Your task to perform on an android device: Open settings on Google Maps Image 0: 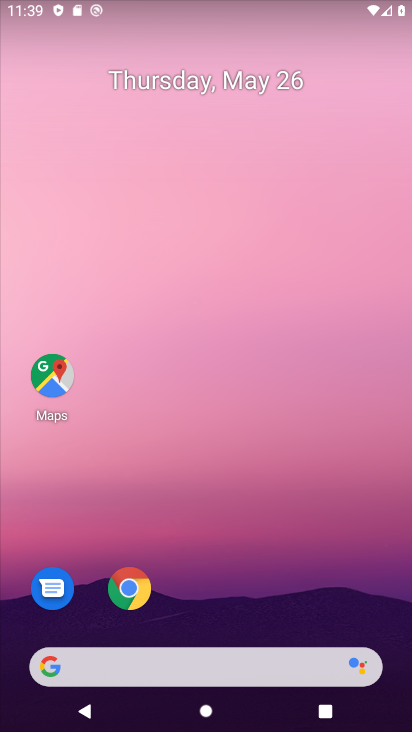
Step 0: drag from (198, 622) to (240, 721)
Your task to perform on an android device: Open settings on Google Maps Image 1: 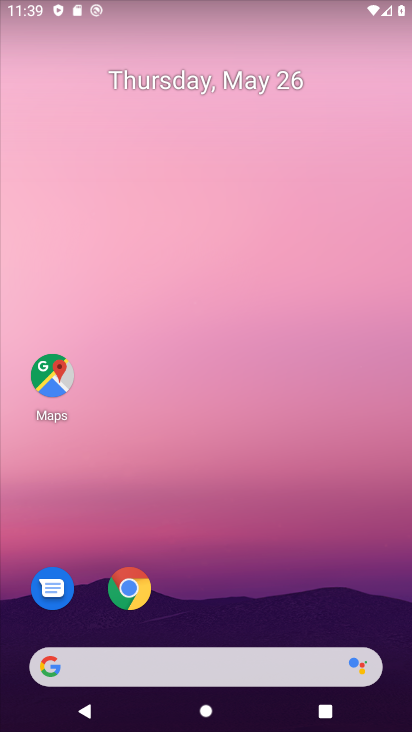
Step 1: drag from (217, 627) to (214, 11)
Your task to perform on an android device: Open settings on Google Maps Image 2: 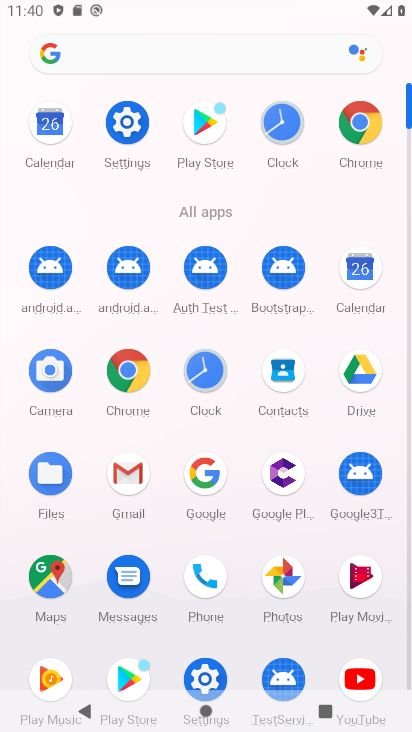
Step 2: click (45, 577)
Your task to perform on an android device: Open settings on Google Maps Image 3: 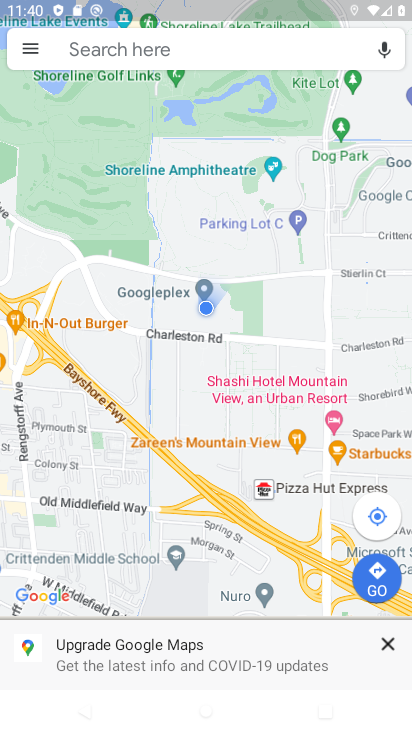
Step 3: click (22, 42)
Your task to perform on an android device: Open settings on Google Maps Image 4: 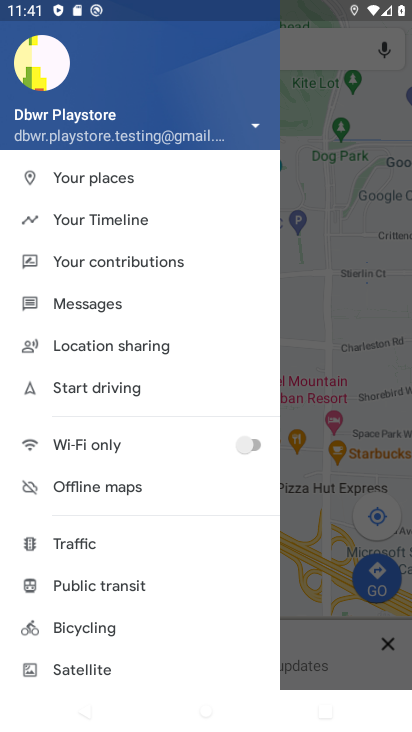
Step 4: drag from (64, 604) to (27, 118)
Your task to perform on an android device: Open settings on Google Maps Image 5: 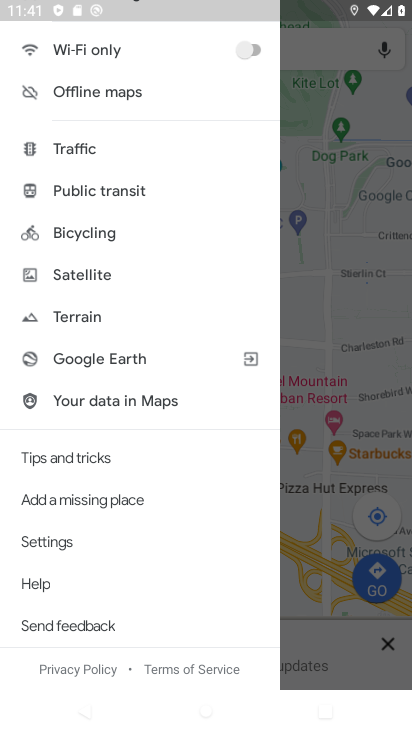
Step 5: click (34, 534)
Your task to perform on an android device: Open settings on Google Maps Image 6: 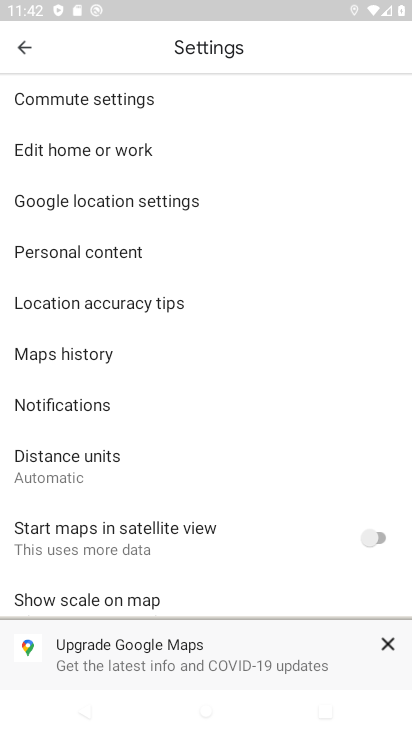
Step 6: task complete